Your task to perform on an android device: Open privacy settings Image 0: 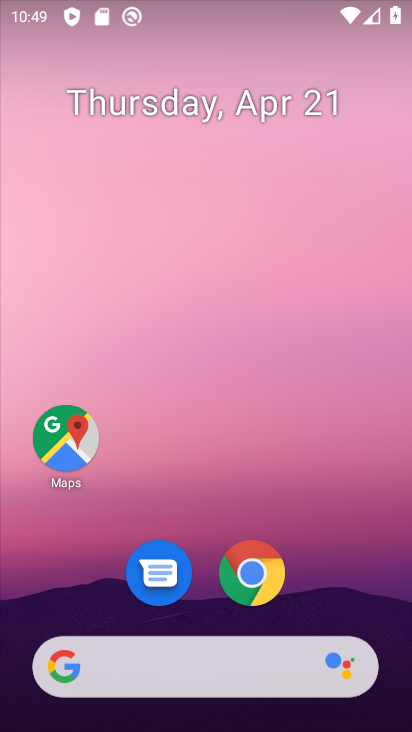
Step 0: drag from (312, 311) to (267, 2)
Your task to perform on an android device: Open privacy settings Image 1: 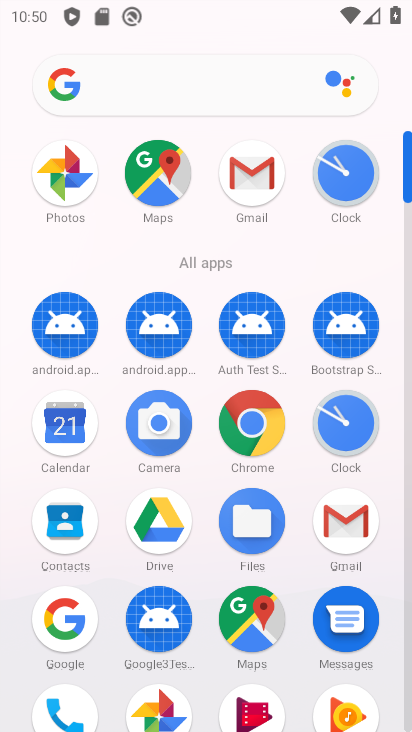
Step 1: drag from (295, 612) to (297, 386)
Your task to perform on an android device: Open privacy settings Image 2: 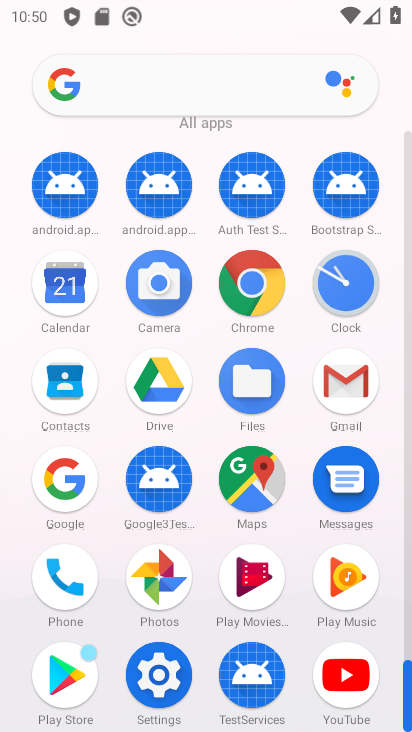
Step 2: click (165, 679)
Your task to perform on an android device: Open privacy settings Image 3: 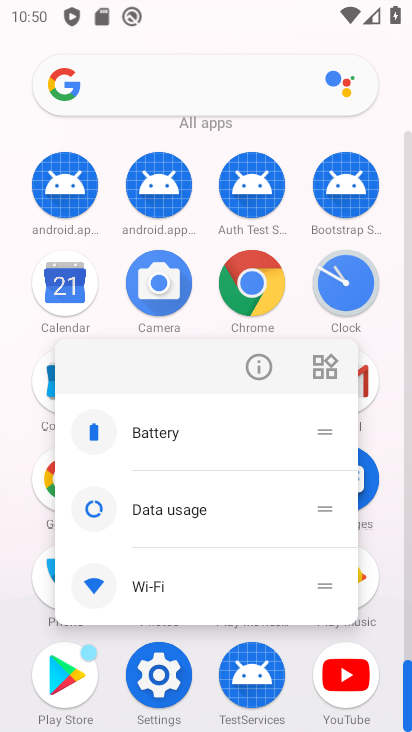
Step 3: click (175, 674)
Your task to perform on an android device: Open privacy settings Image 4: 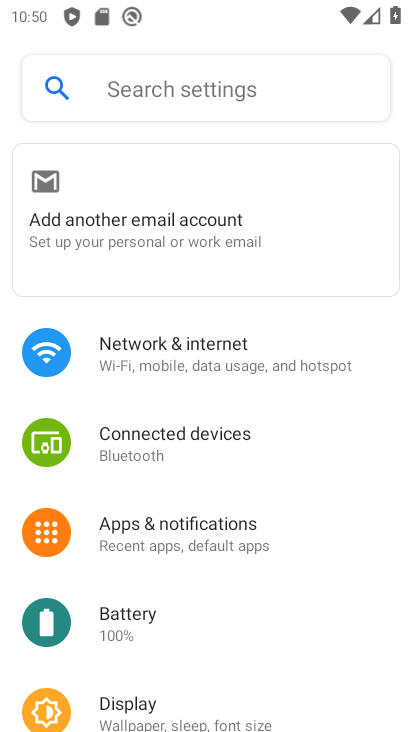
Step 4: drag from (207, 558) to (166, 230)
Your task to perform on an android device: Open privacy settings Image 5: 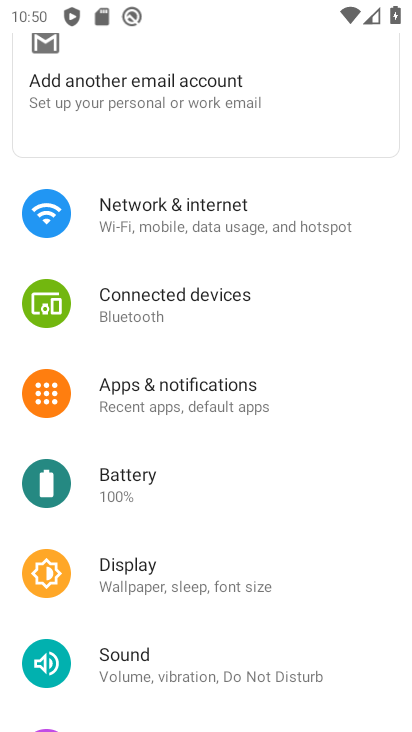
Step 5: drag from (236, 612) to (213, 337)
Your task to perform on an android device: Open privacy settings Image 6: 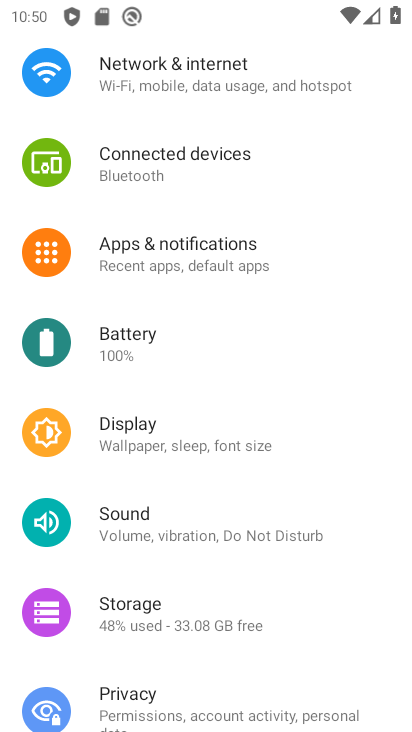
Step 6: click (182, 692)
Your task to perform on an android device: Open privacy settings Image 7: 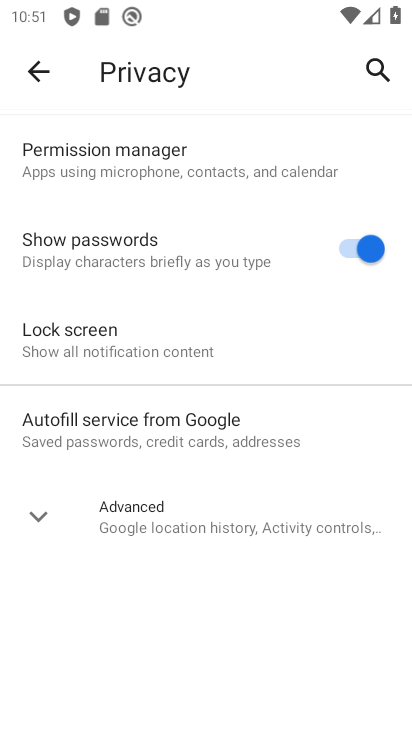
Step 7: task complete